Your task to perform on an android device: turn smart compose on in the gmail app Image 0: 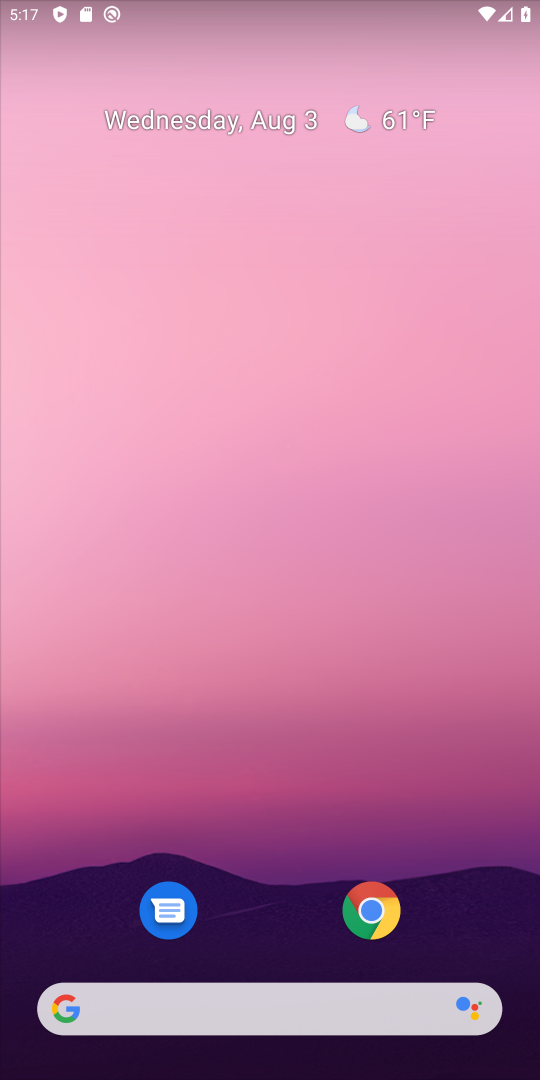
Step 0: drag from (234, 928) to (123, 94)
Your task to perform on an android device: turn smart compose on in the gmail app Image 1: 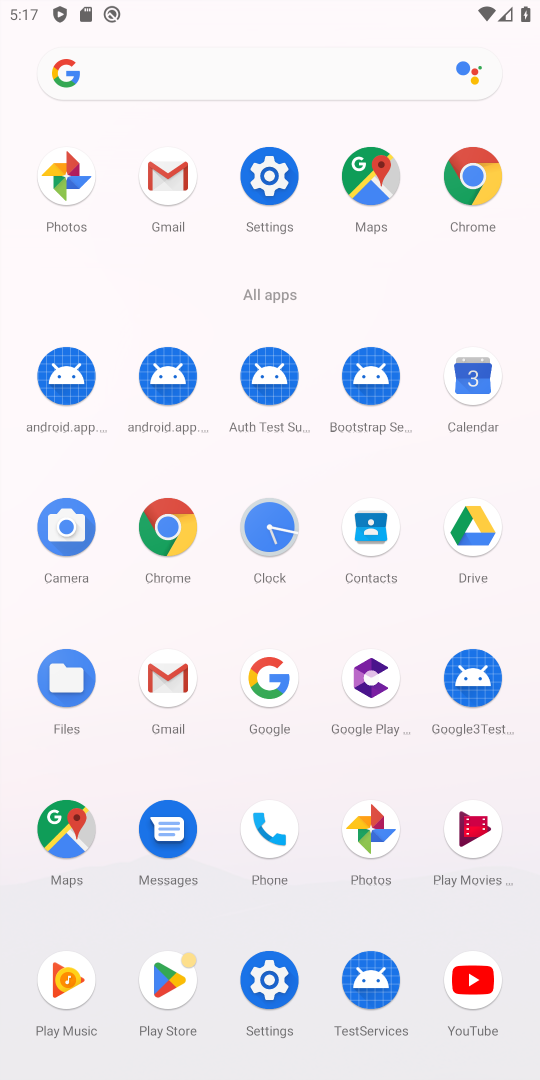
Step 1: click (168, 682)
Your task to perform on an android device: turn smart compose on in the gmail app Image 2: 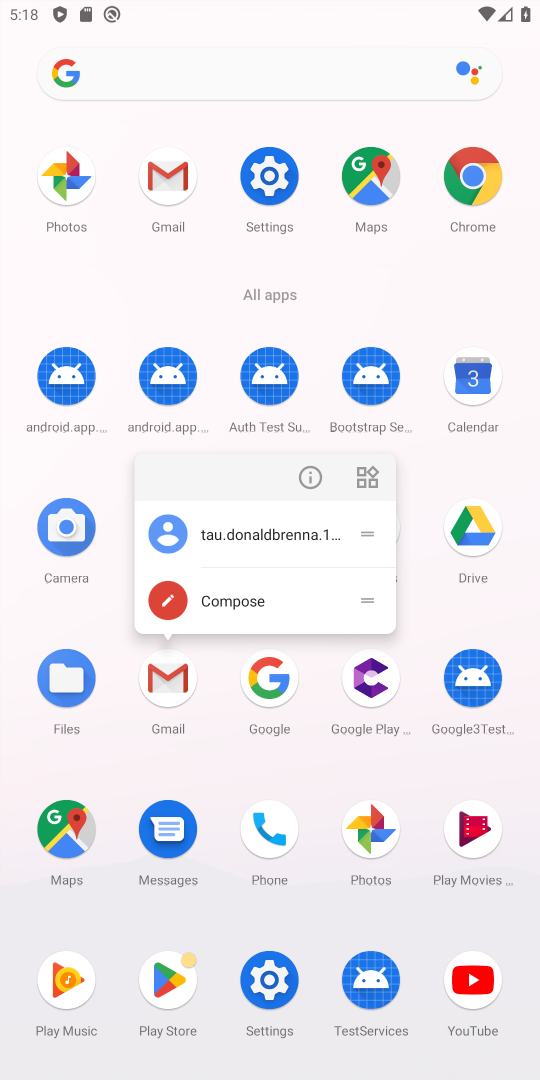
Step 2: click (163, 672)
Your task to perform on an android device: turn smart compose on in the gmail app Image 3: 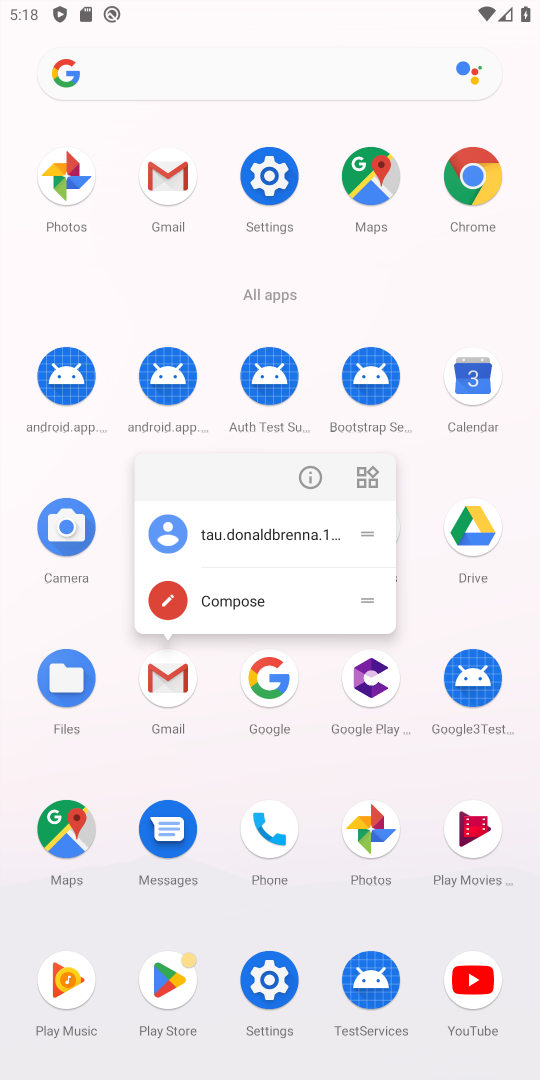
Step 3: click (163, 672)
Your task to perform on an android device: turn smart compose on in the gmail app Image 4: 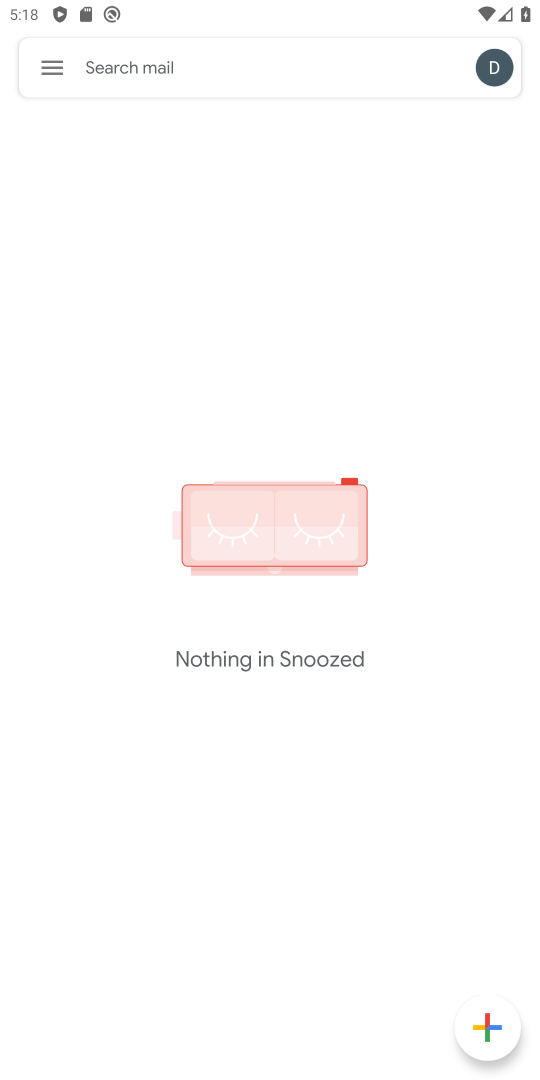
Step 4: click (43, 61)
Your task to perform on an android device: turn smart compose on in the gmail app Image 5: 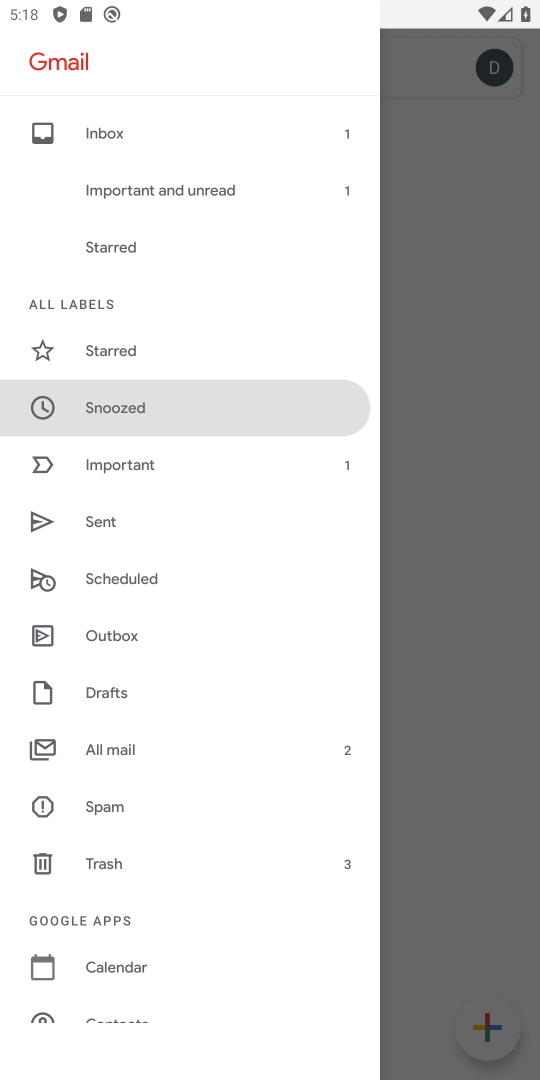
Step 5: drag from (205, 924) to (254, 179)
Your task to perform on an android device: turn smart compose on in the gmail app Image 6: 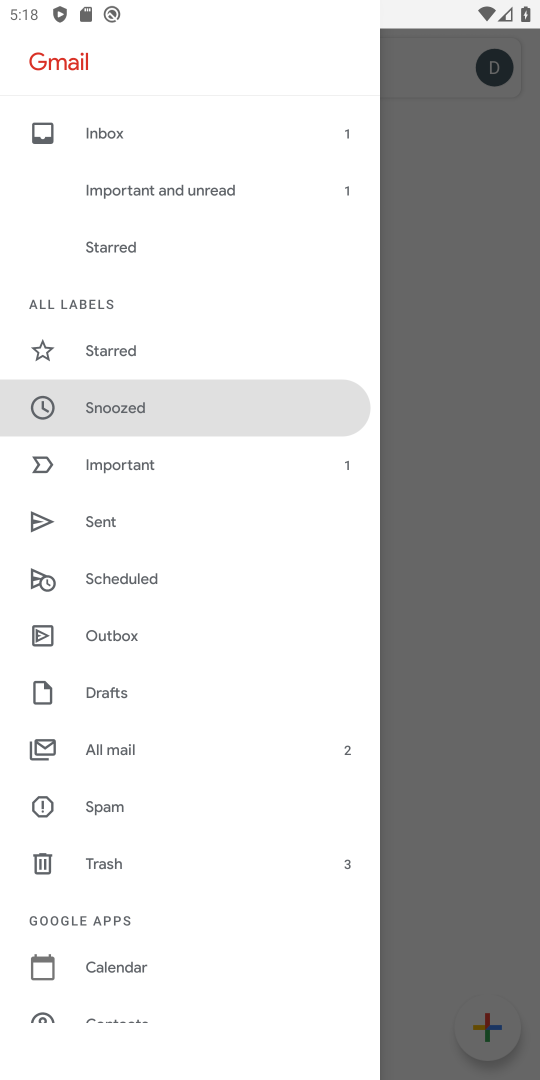
Step 6: drag from (232, 687) to (339, 146)
Your task to perform on an android device: turn smart compose on in the gmail app Image 7: 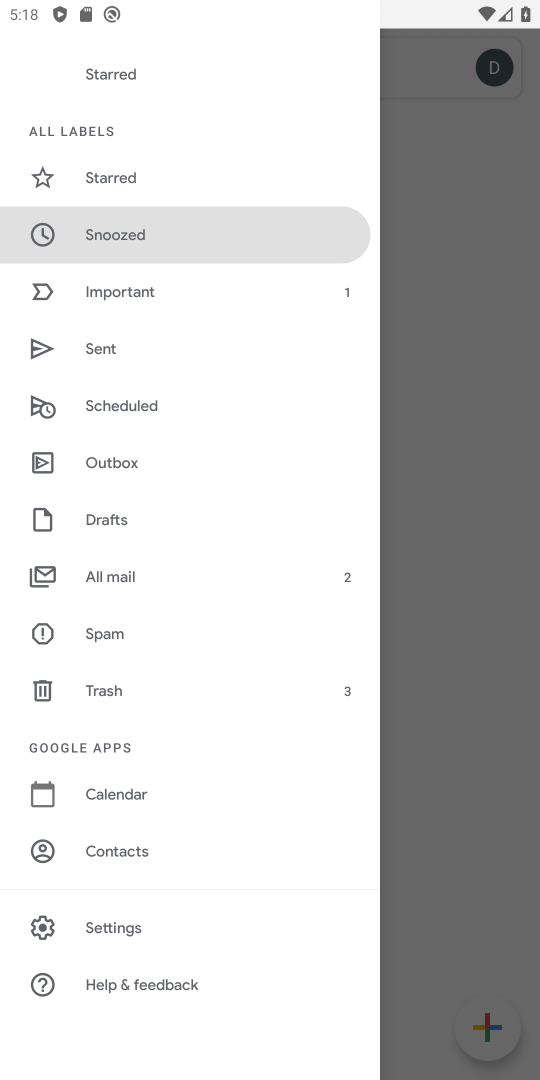
Step 7: click (130, 928)
Your task to perform on an android device: turn smart compose on in the gmail app Image 8: 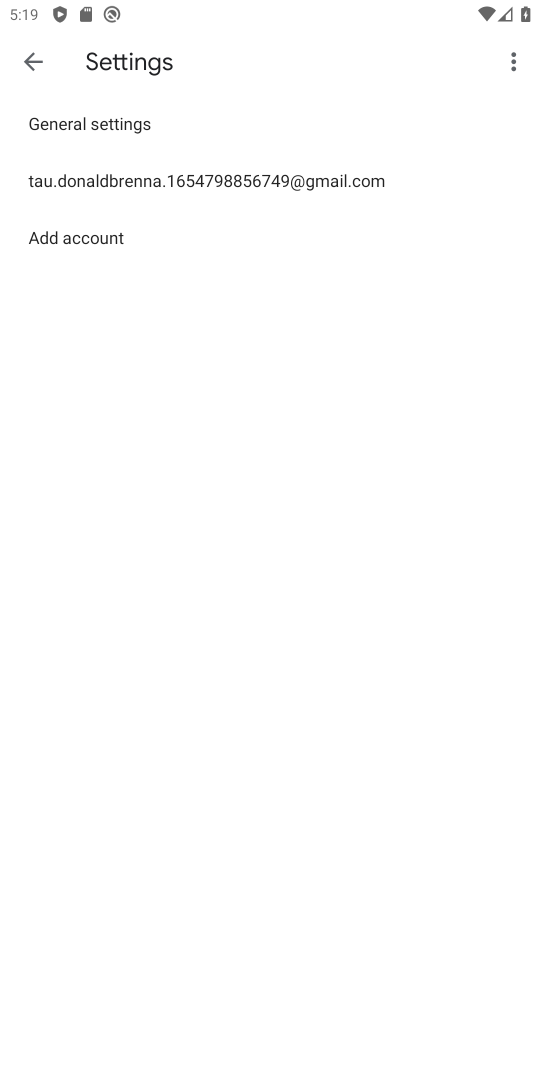
Step 8: click (169, 170)
Your task to perform on an android device: turn smart compose on in the gmail app Image 9: 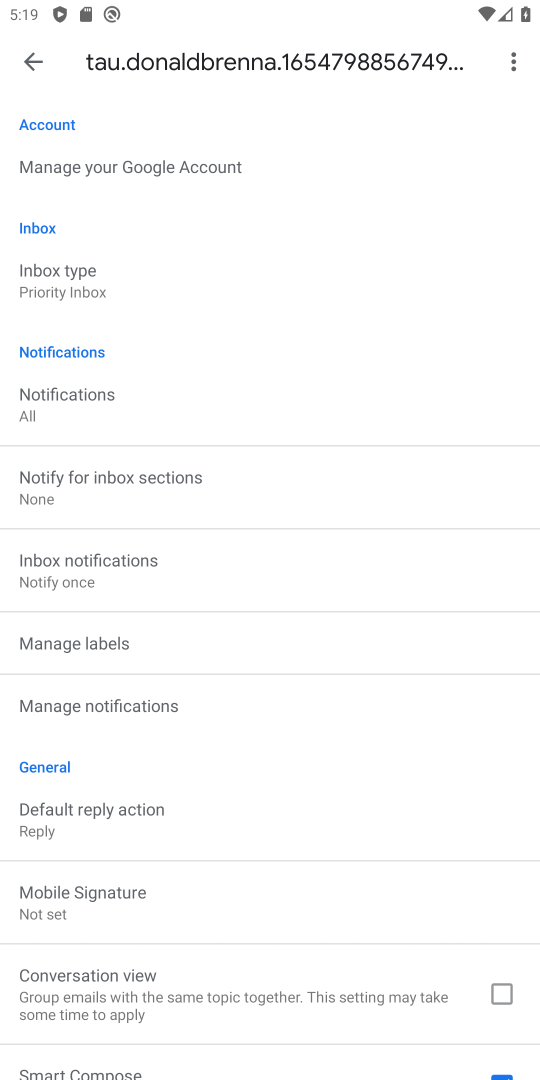
Step 9: task complete